Your task to perform on an android device: turn on the 24-hour format for clock Image 0: 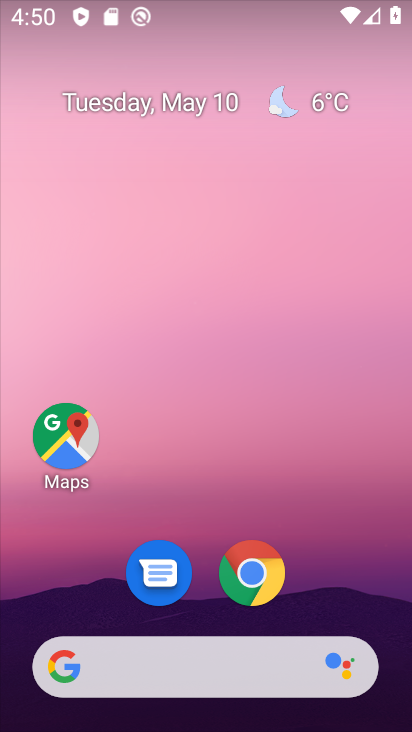
Step 0: drag from (182, 618) to (272, 125)
Your task to perform on an android device: turn on the 24-hour format for clock Image 1: 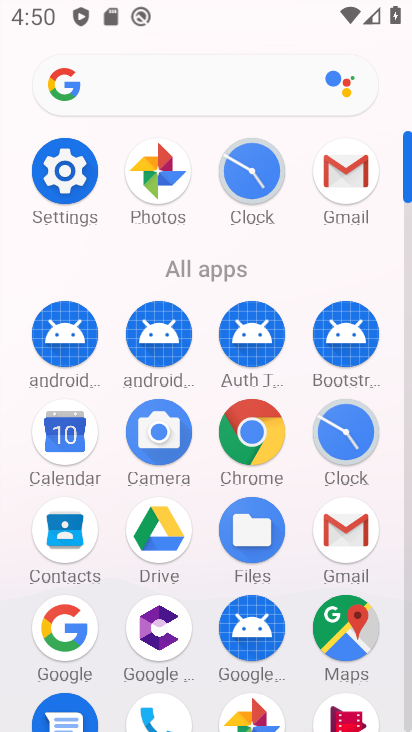
Step 1: click (349, 431)
Your task to perform on an android device: turn on the 24-hour format for clock Image 2: 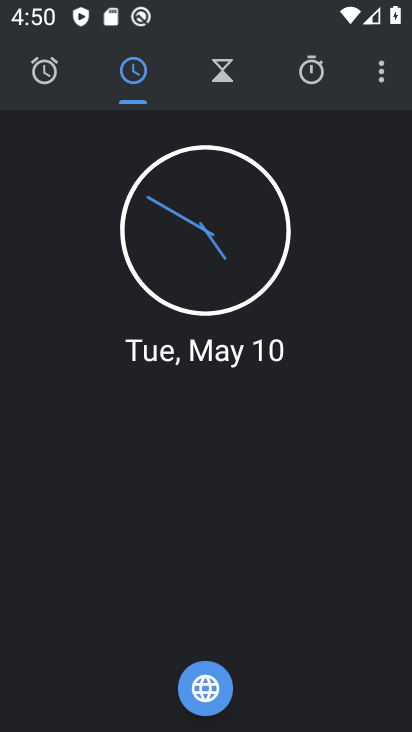
Step 2: click (376, 69)
Your task to perform on an android device: turn on the 24-hour format for clock Image 3: 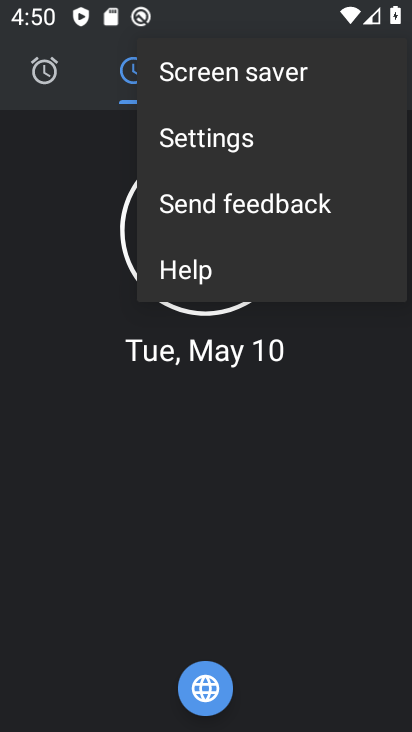
Step 3: click (326, 125)
Your task to perform on an android device: turn on the 24-hour format for clock Image 4: 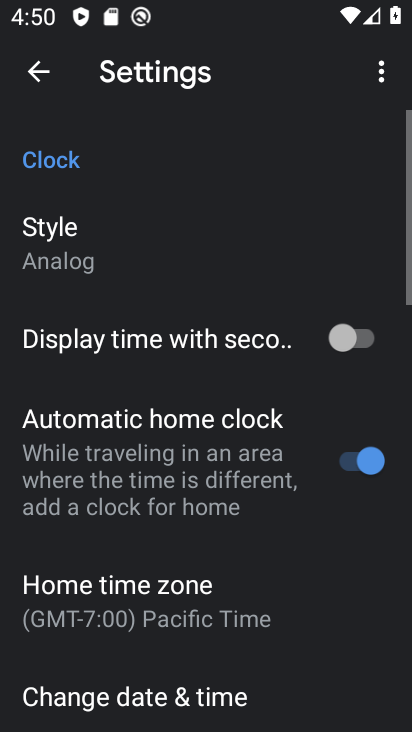
Step 4: click (252, 693)
Your task to perform on an android device: turn on the 24-hour format for clock Image 5: 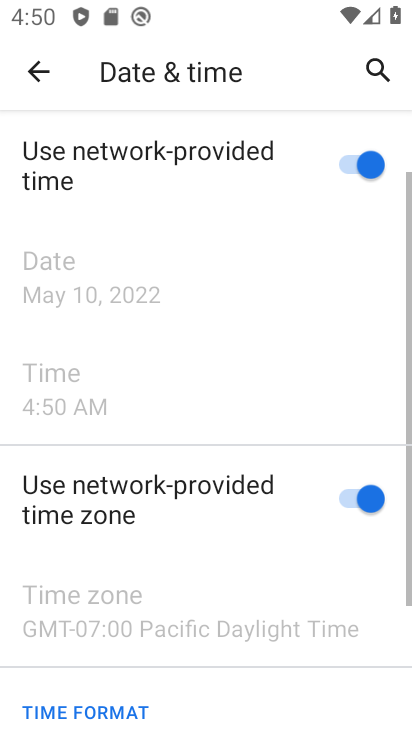
Step 5: drag from (186, 622) to (246, 195)
Your task to perform on an android device: turn on the 24-hour format for clock Image 6: 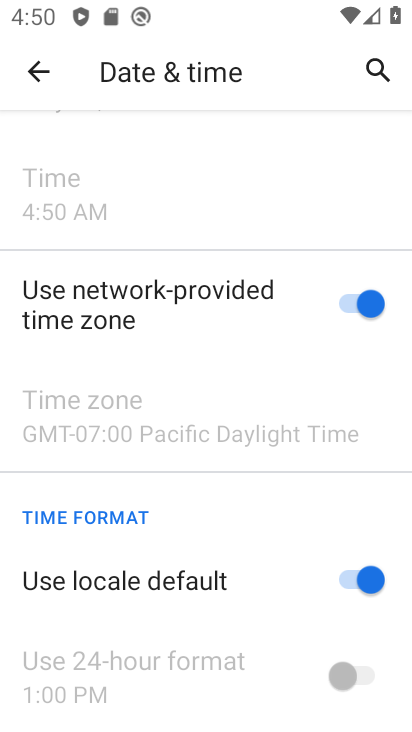
Step 6: click (364, 591)
Your task to perform on an android device: turn on the 24-hour format for clock Image 7: 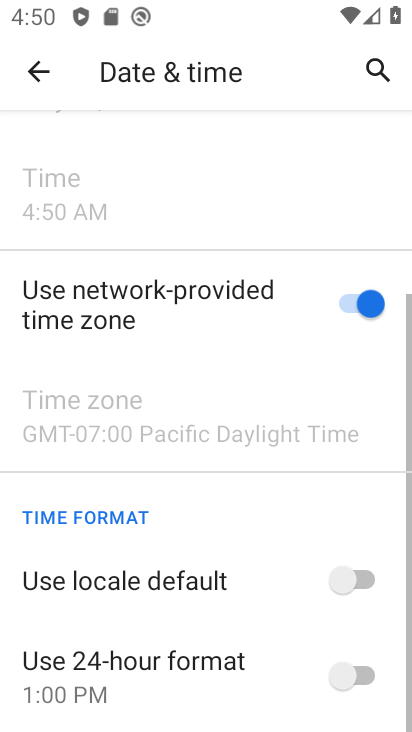
Step 7: click (373, 670)
Your task to perform on an android device: turn on the 24-hour format for clock Image 8: 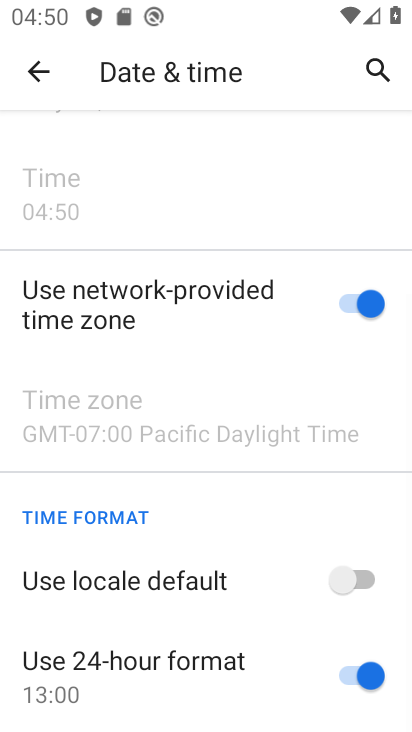
Step 8: task complete